Your task to perform on an android device: turn pop-ups on in chrome Image 0: 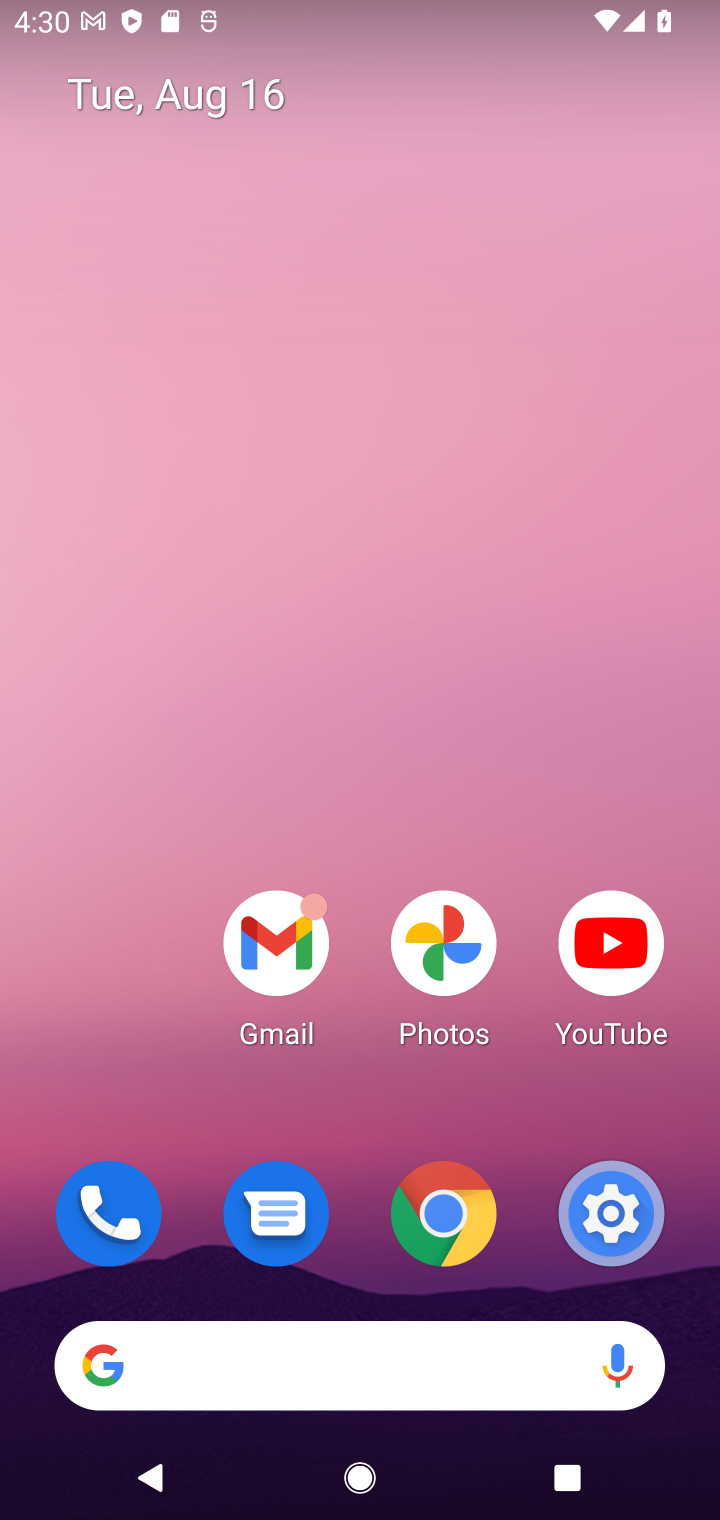
Step 0: drag from (517, 1106) to (249, 0)
Your task to perform on an android device: turn pop-ups on in chrome Image 1: 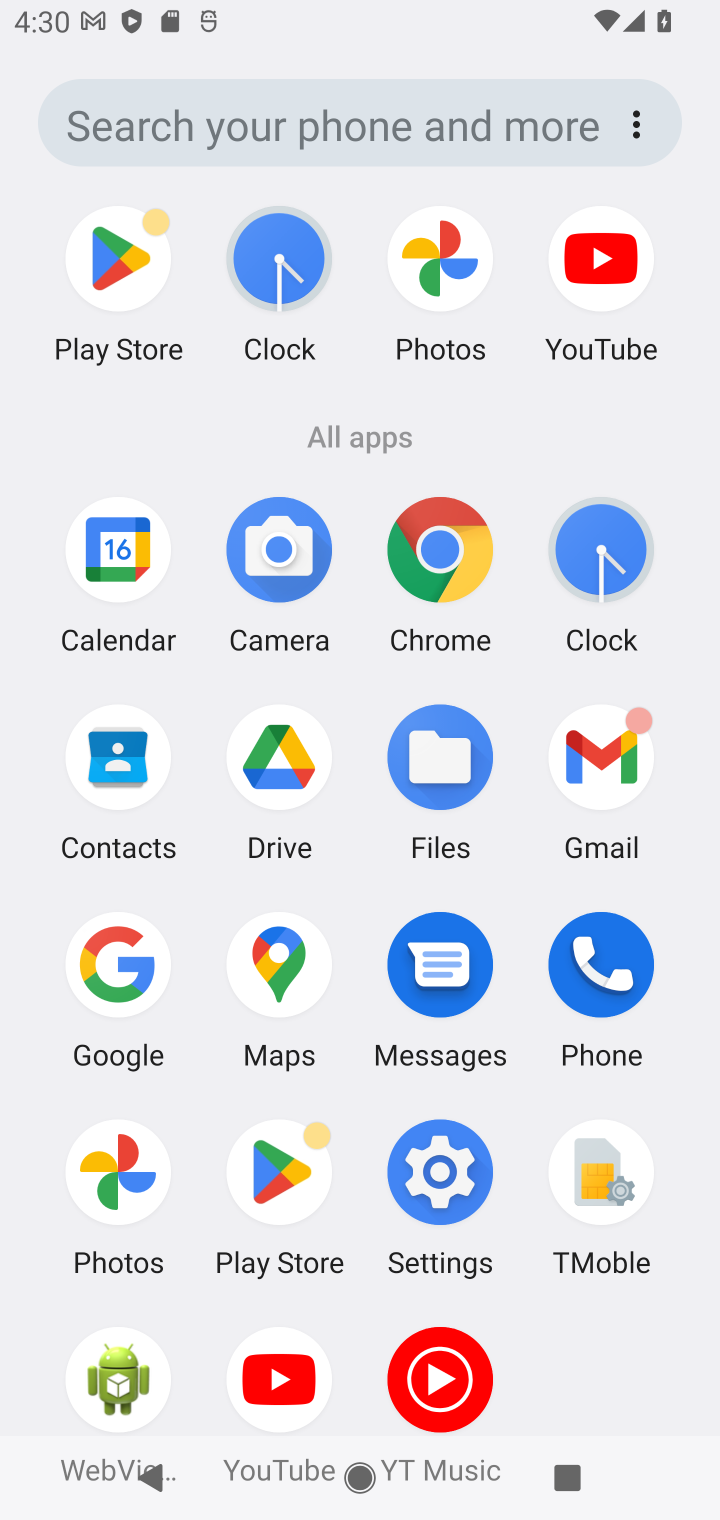
Step 1: click (439, 552)
Your task to perform on an android device: turn pop-ups on in chrome Image 2: 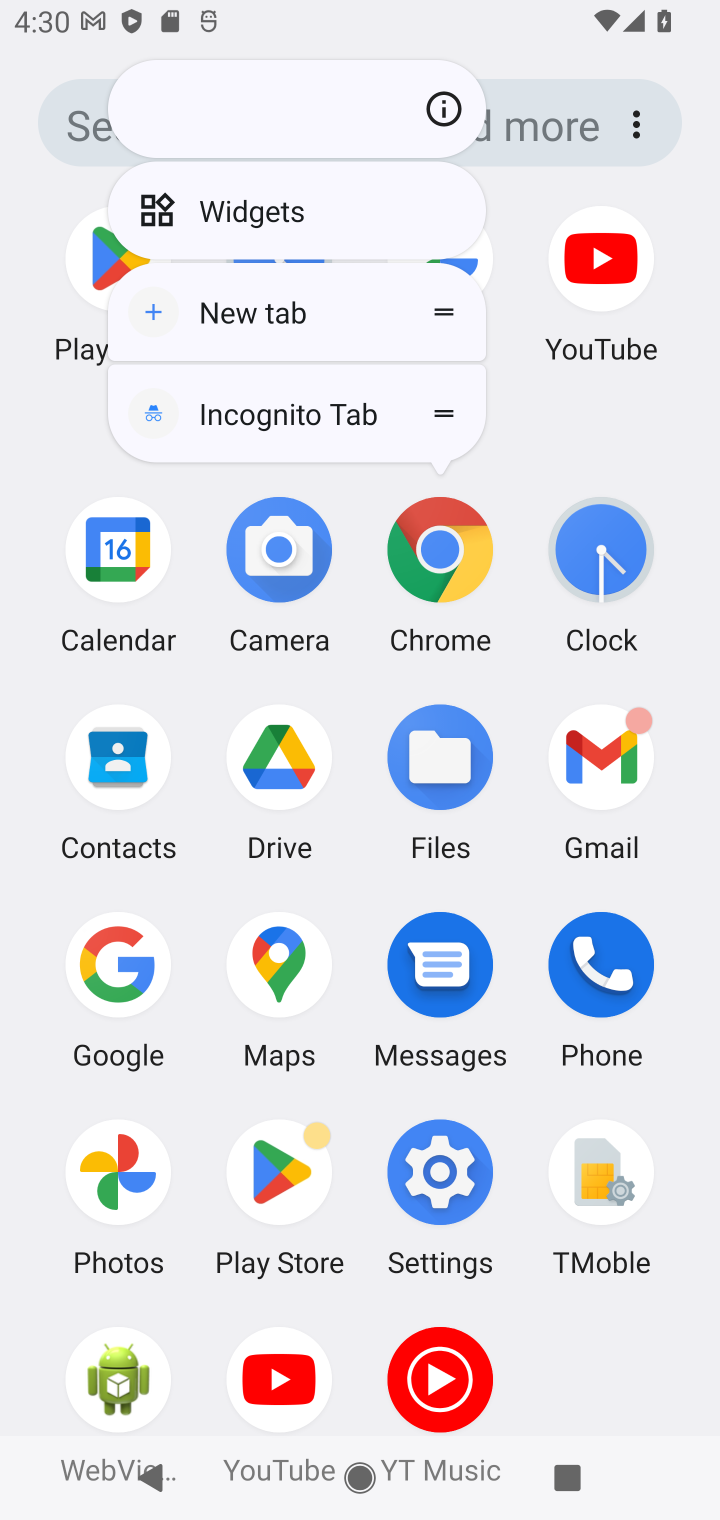
Step 2: click (447, 563)
Your task to perform on an android device: turn pop-ups on in chrome Image 3: 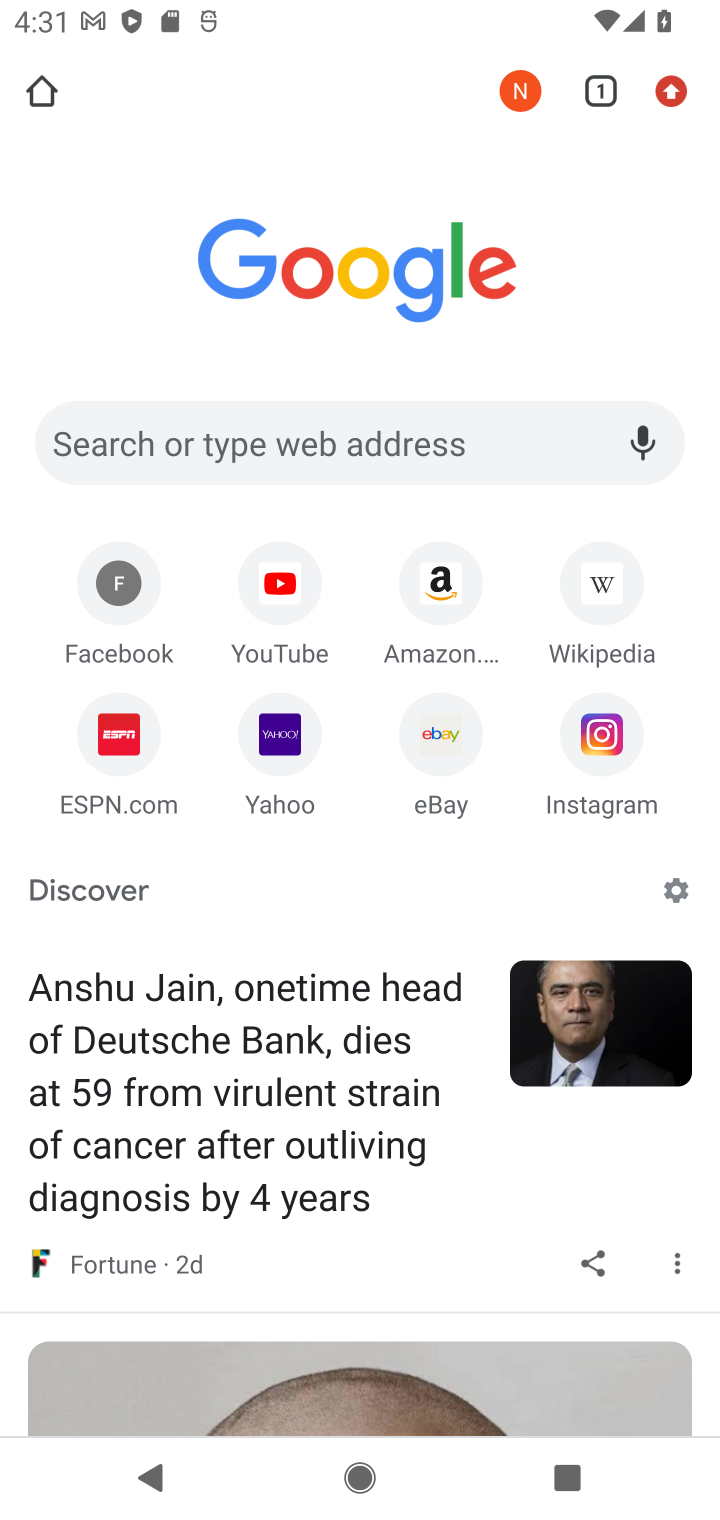
Step 3: drag from (689, 80) to (409, 932)
Your task to perform on an android device: turn pop-ups on in chrome Image 4: 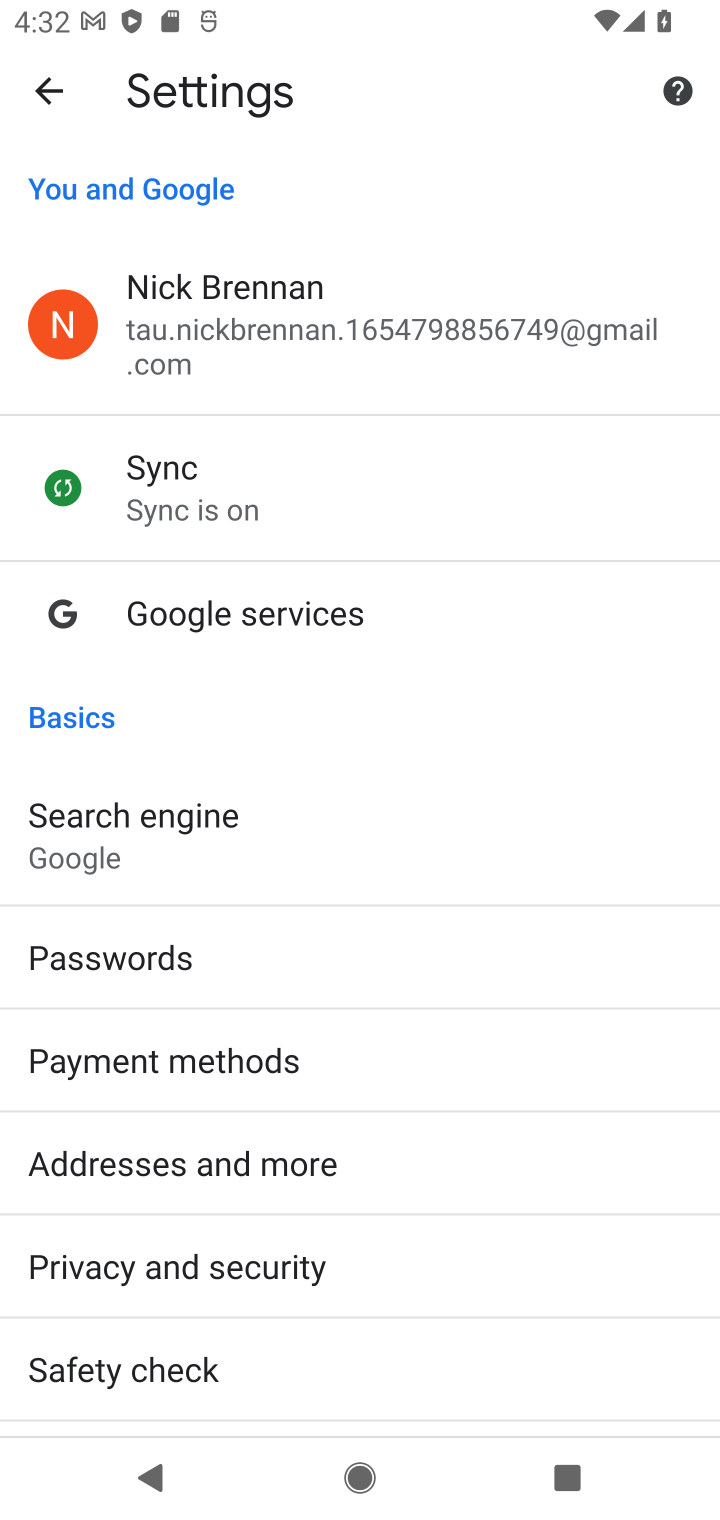
Step 4: drag from (385, 1221) to (389, 126)
Your task to perform on an android device: turn pop-ups on in chrome Image 5: 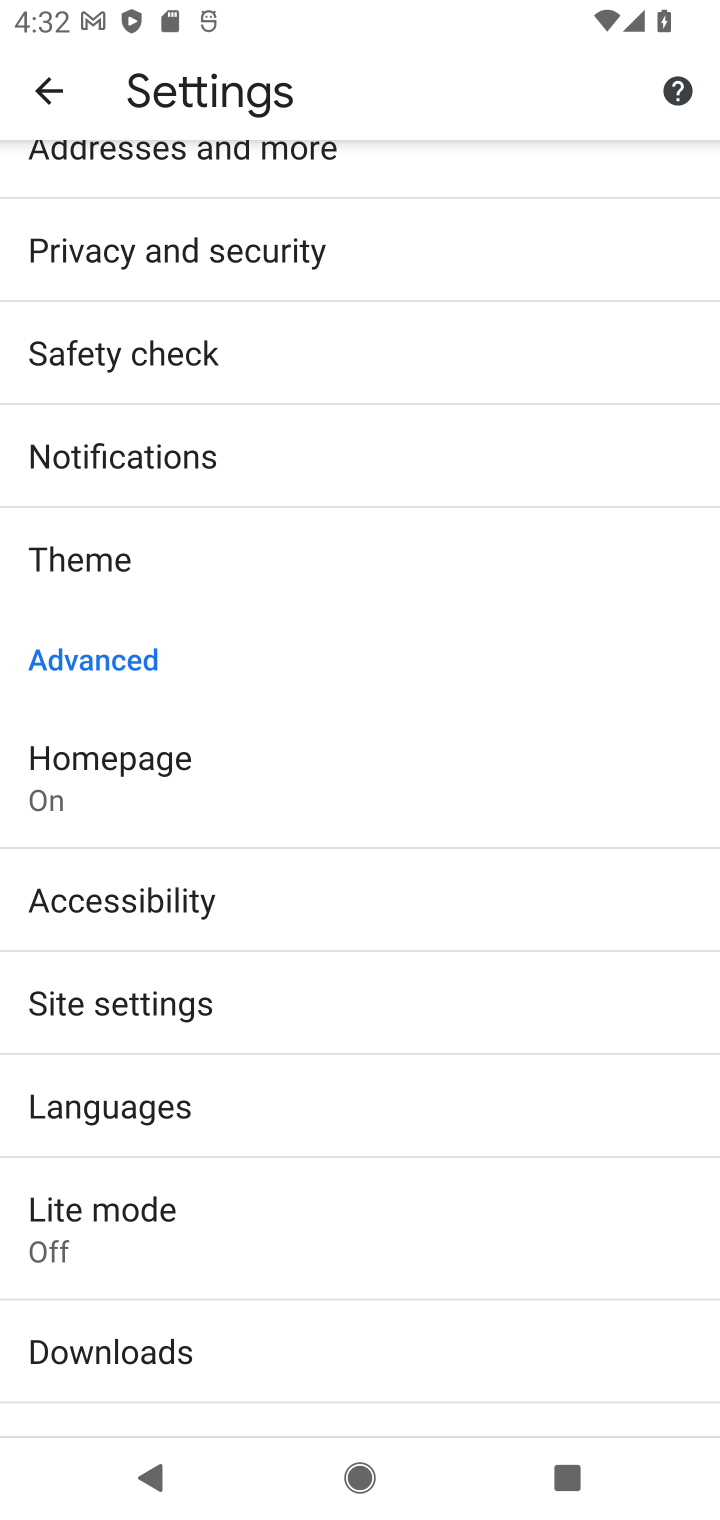
Step 5: drag from (241, 1255) to (281, 733)
Your task to perform on an android device: turn pop-ups on in chrome Image 6: 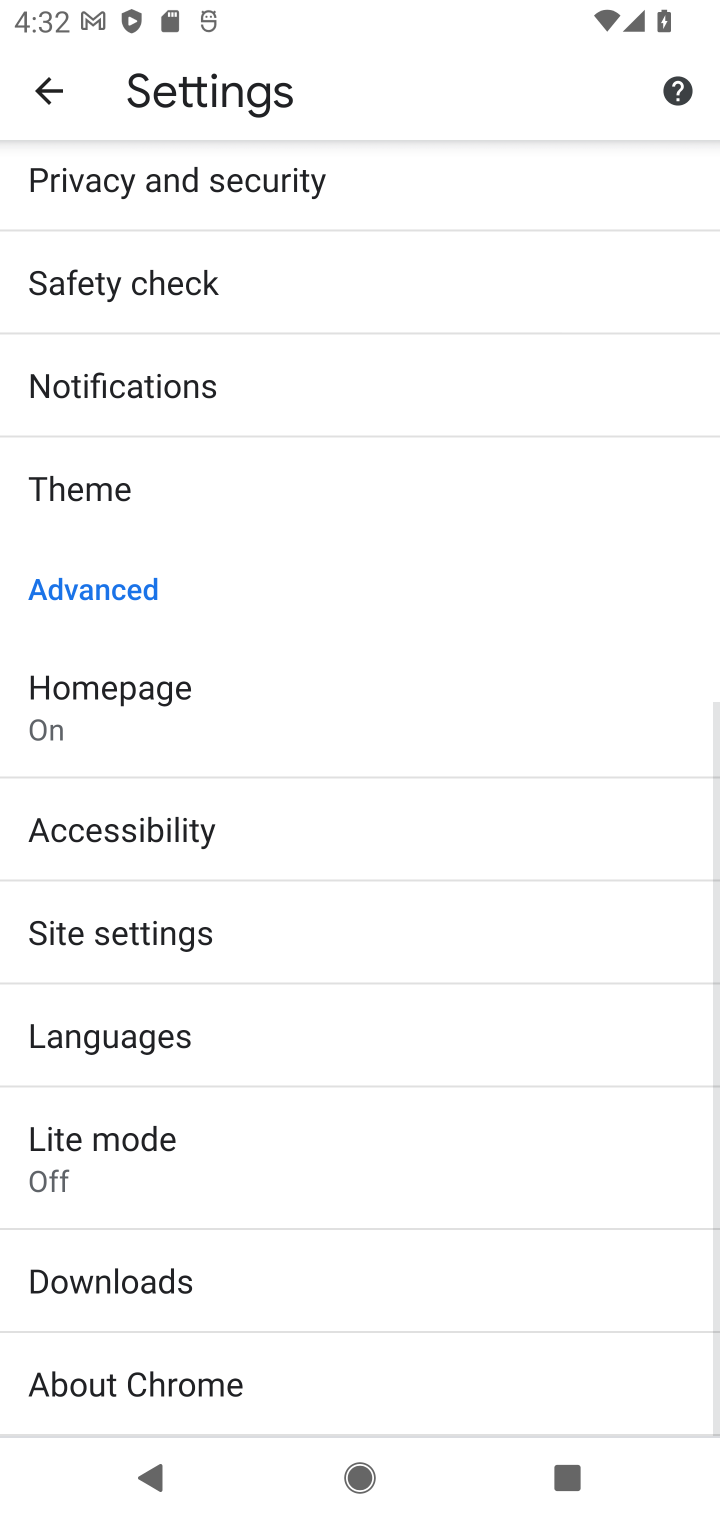
Step 6: click (171, 950)
Your task to perform on an android device: turn pop-ups on in chrome Image 7: 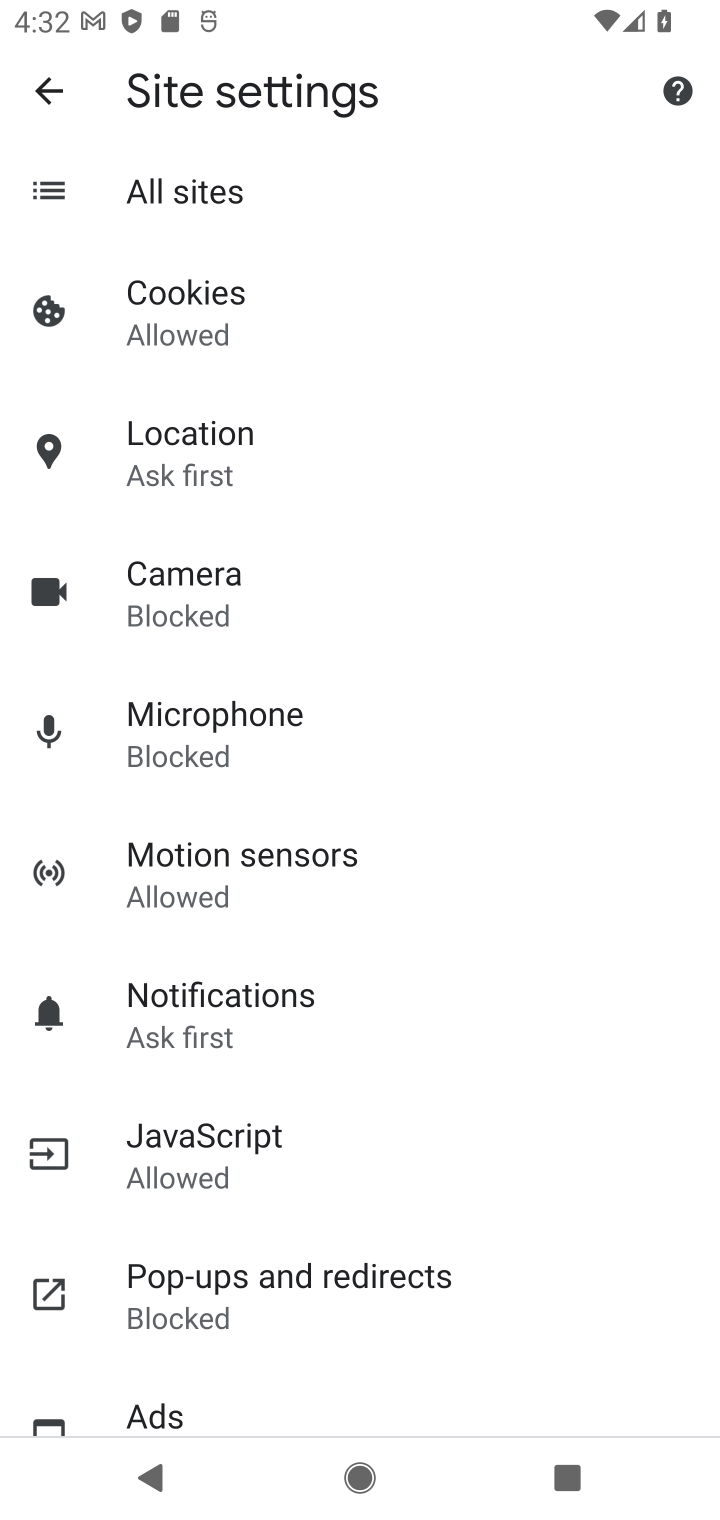
Step 7: click (272, 1290)
Your task to perform on an android device: turn pop-ups on in chrome Image 8: 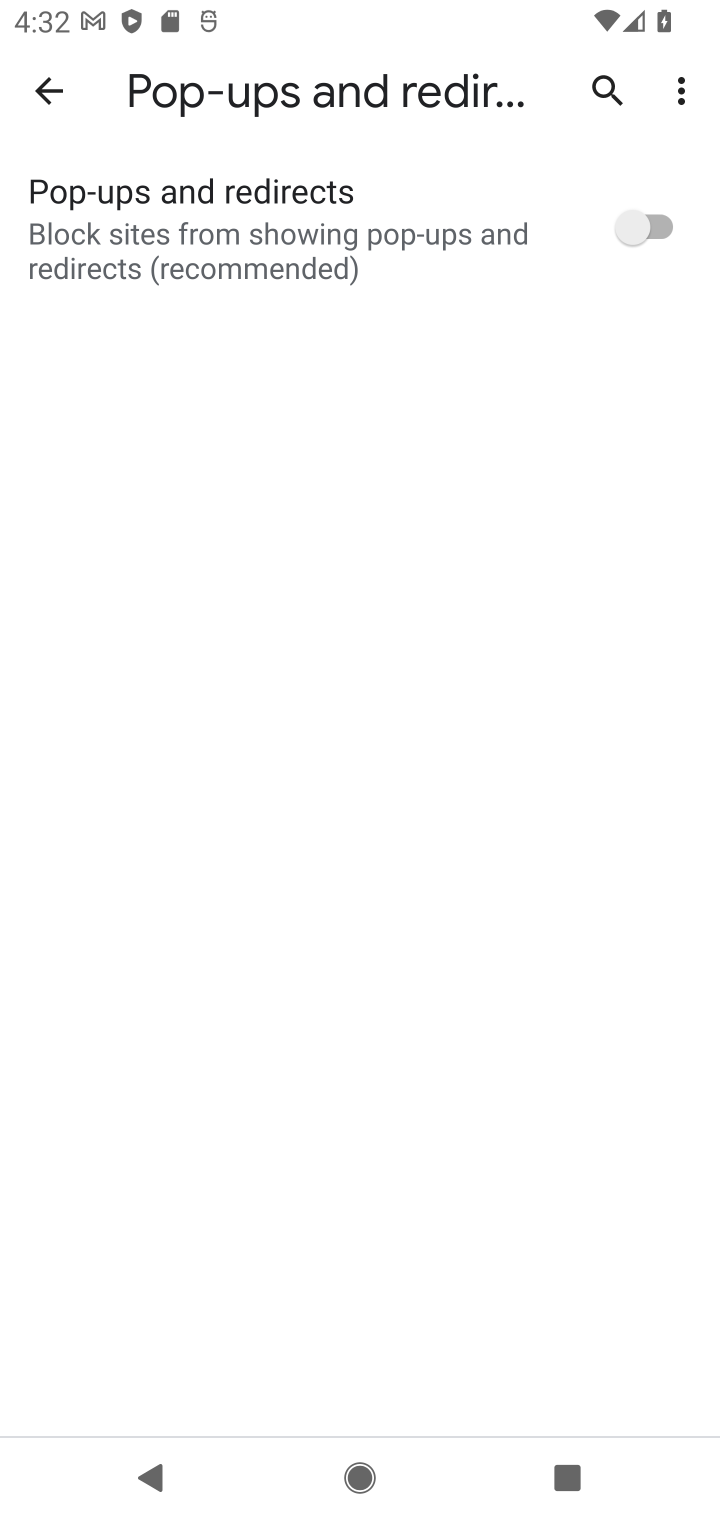
Step 8: click (643, 225)
Your task to perform on an android device: turn pop-ups on in chrome Image 9: 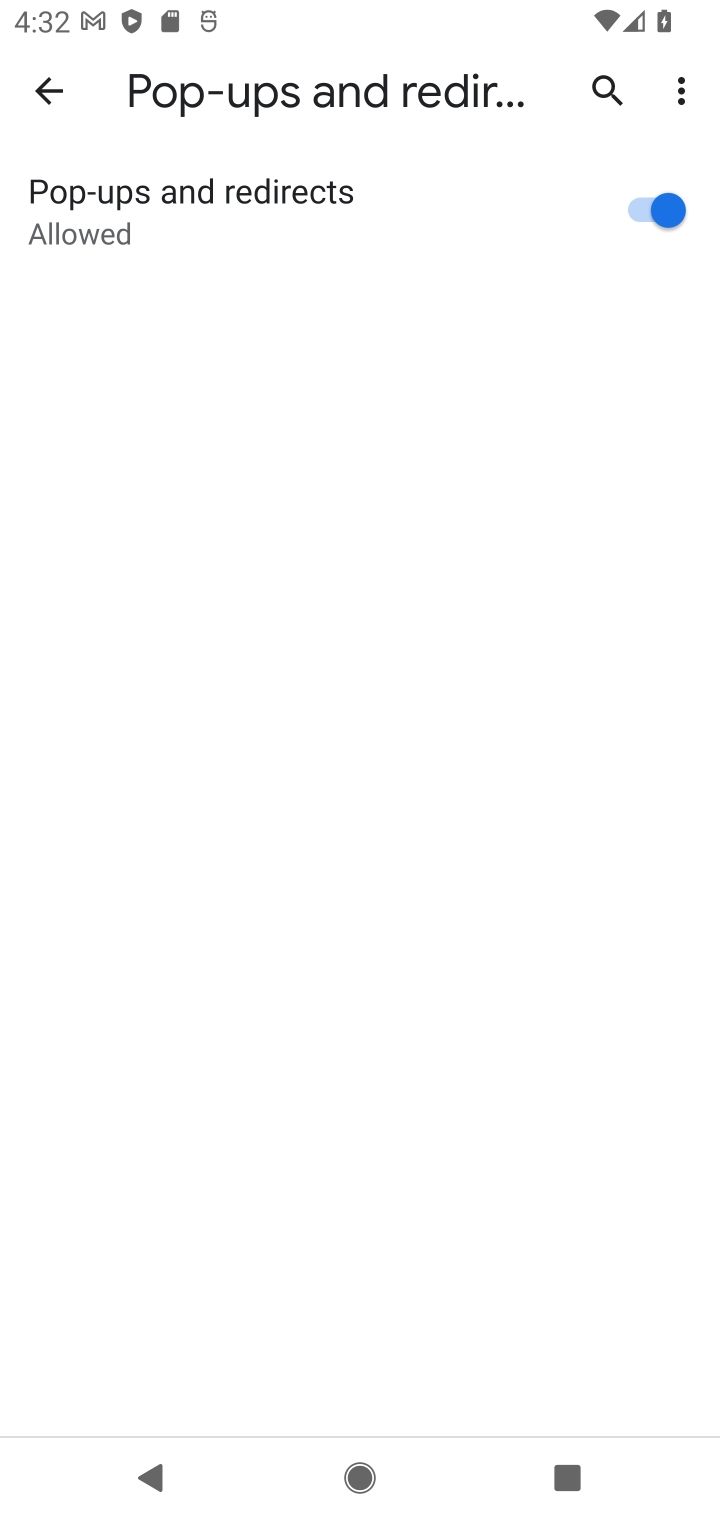
Step 9: task complete